Your task to perform on an android device: make emails show in primary in the gmail app Image 0: 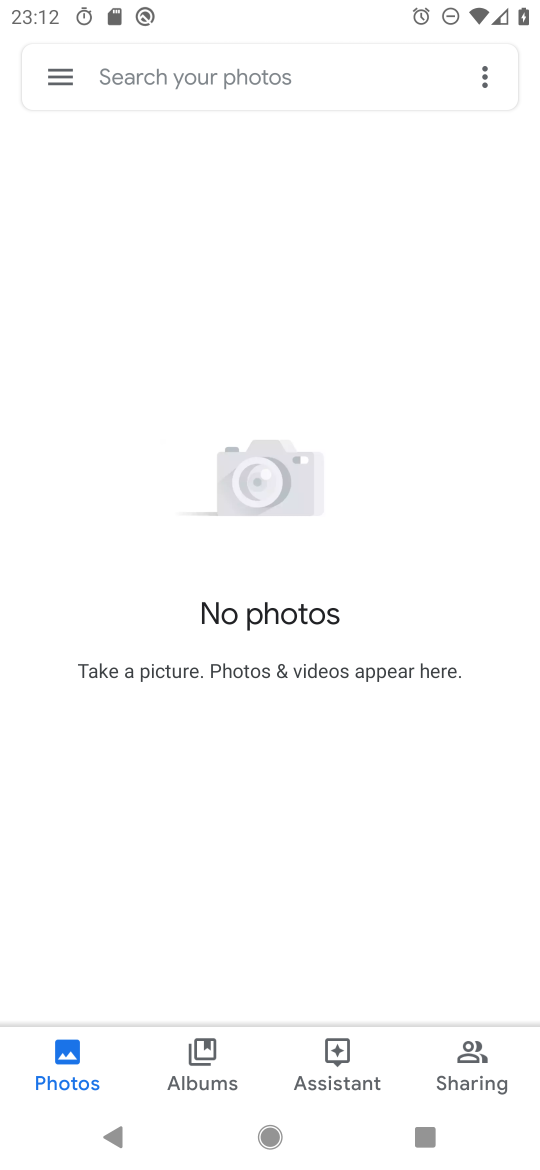
Step 0: drag from (291, 900) to (463, 252)
Your task to perform on an android device: make emails show in primary in the gmail app Image 1: 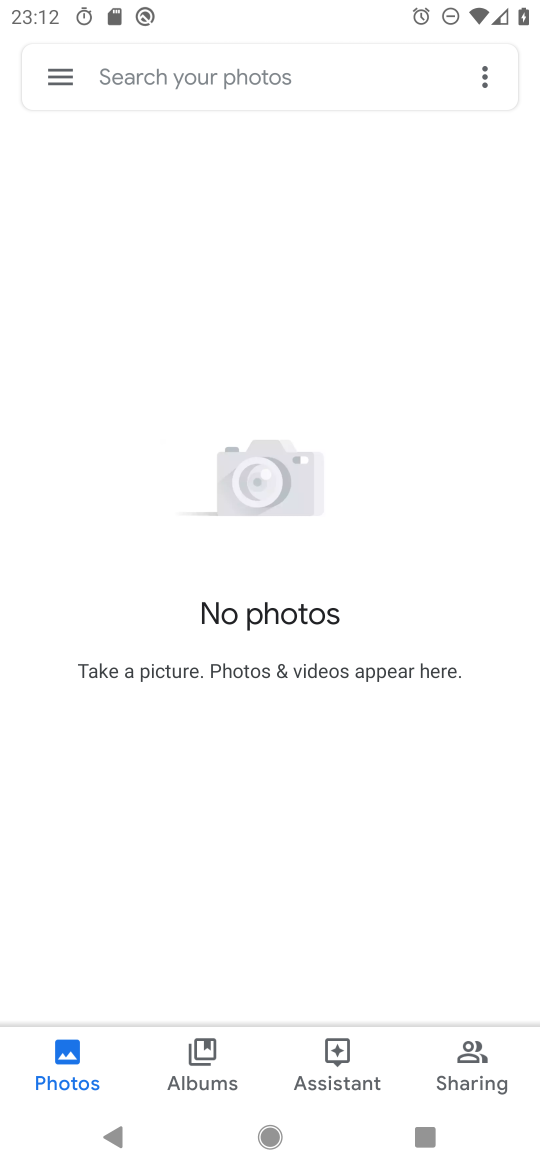
Step 1: press home button
Your task to perform on an android device: make emails show in primary in the gmail app Image 2: 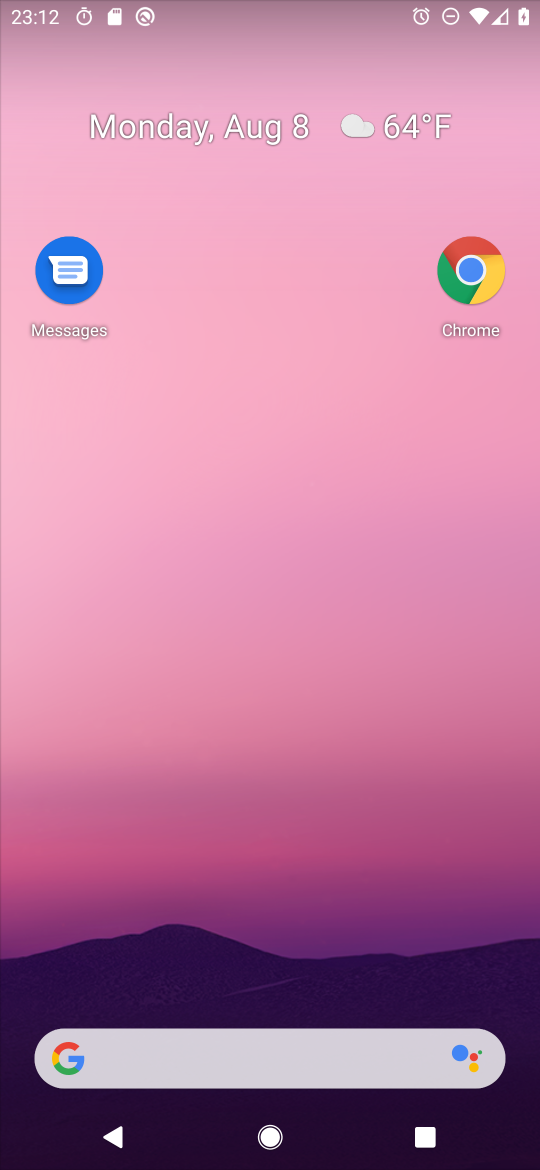
Step 2: drag from (299, 943) to (431, 73)
Your task to perform on an android device: make emails show in primary in the gmail app Image 3: 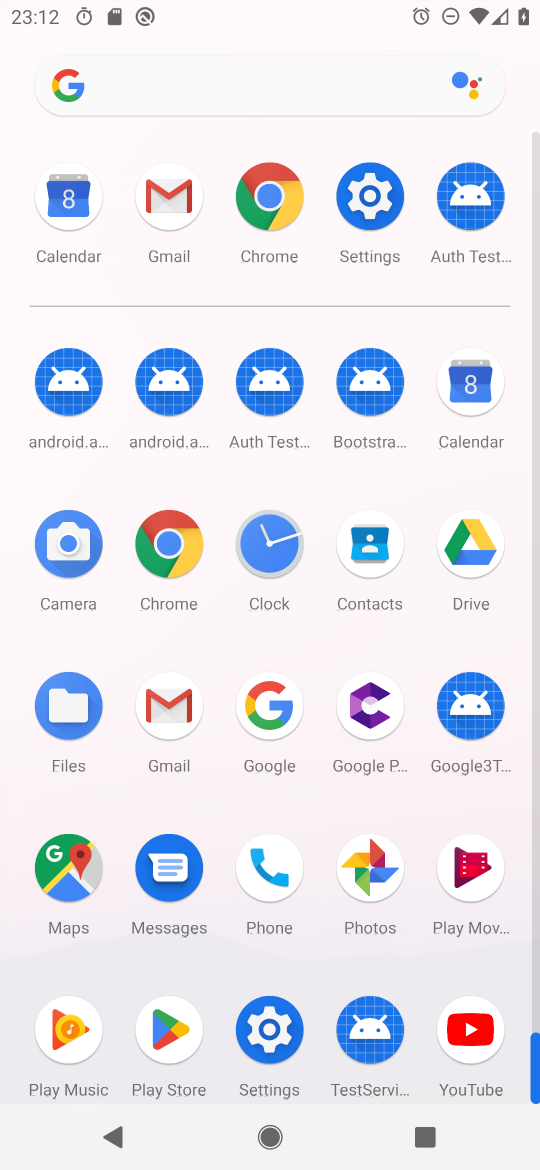
Step 3: click (176, 726)
Your task to perform on an android device: make emails show in primary in the gmail app Image 4: 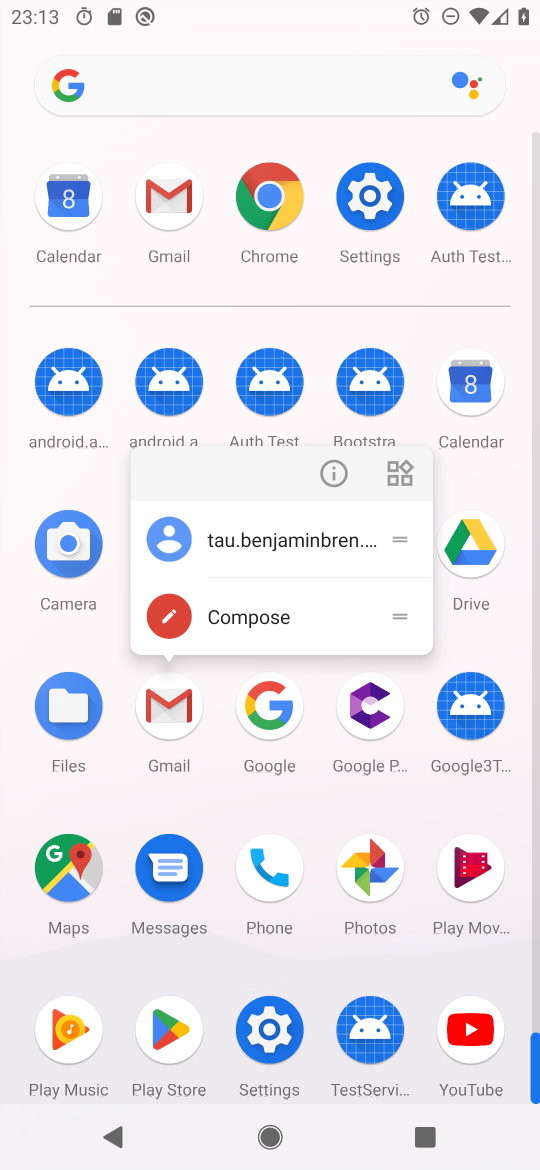
Step 4: click (327, 479)
Your task to perform on an android device: make emails show in primary in the gmail app Image 5: 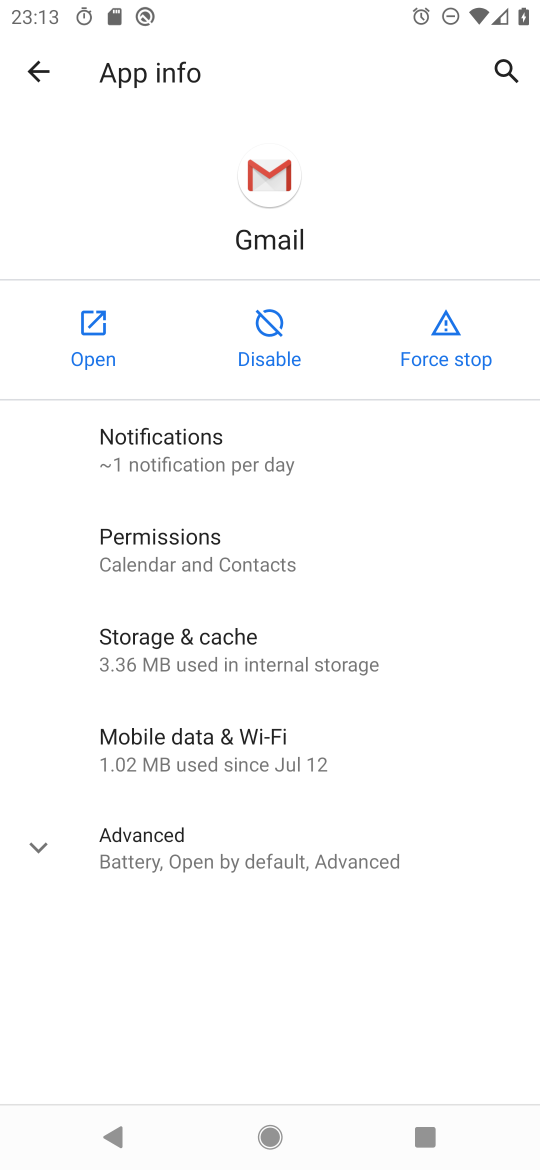
Step 5: click (107, 337)
Your task to perform on an android device: make emails show in primary in the gmail app Image 6: 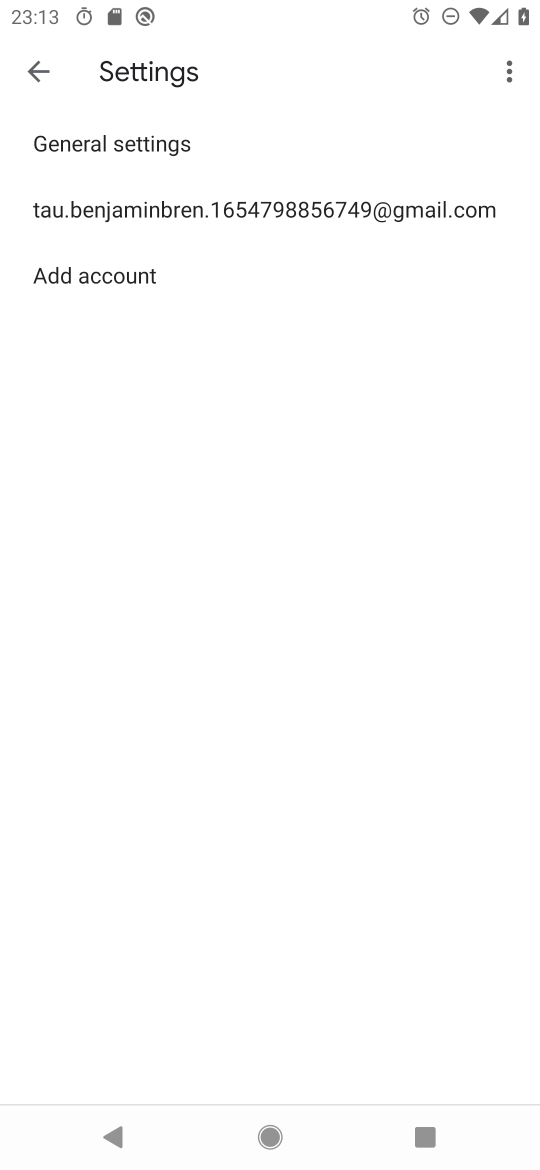
Step 6: click (43, 53)
Your task to perform on an android device: make emails show in primary in the gmail app Image 7: 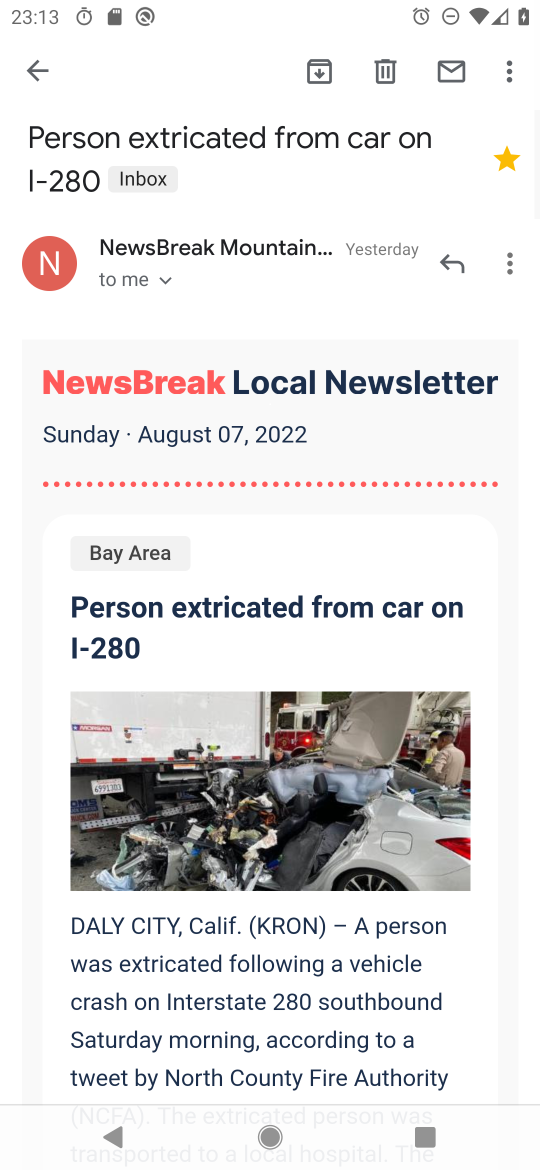
Step 7: click (41, 59)
Your task to perform on an android device: make emails show in primary in the gmail app Image 8: 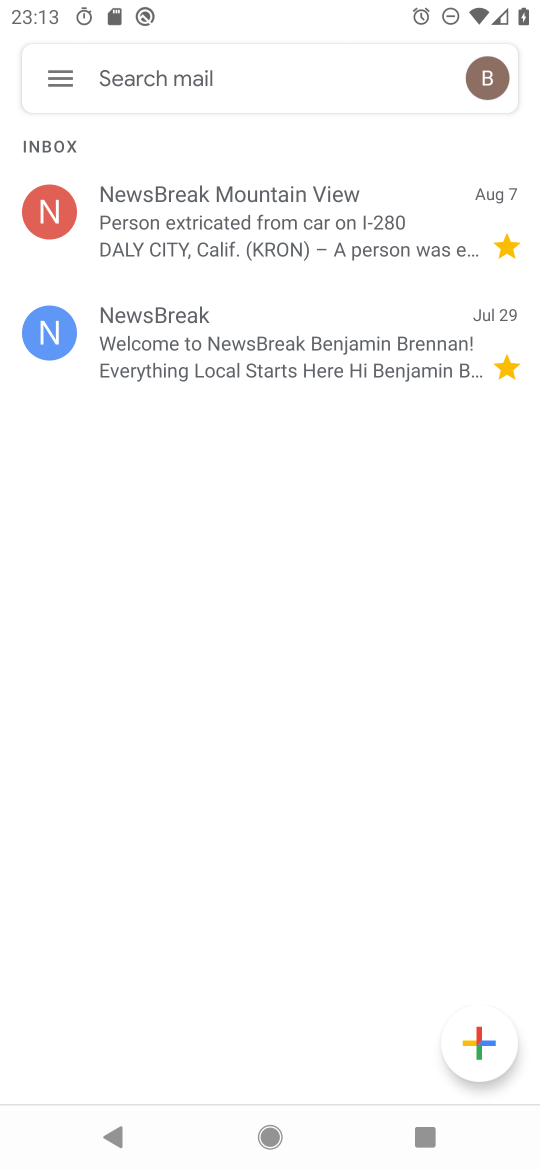
Step 8: click (67, 84)
Your task to perform on an android device: make emails show in primary in the gmail app Image 9: 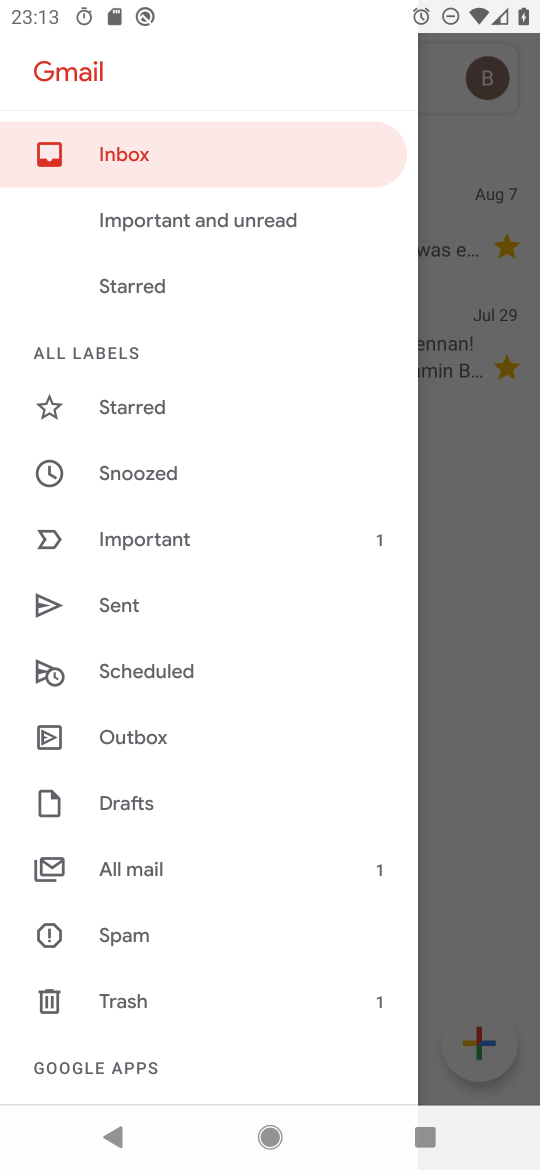
Step 9: click (182, 170)
Your task to perform on an android device: make emails show in primary in the gmail app Image 10: 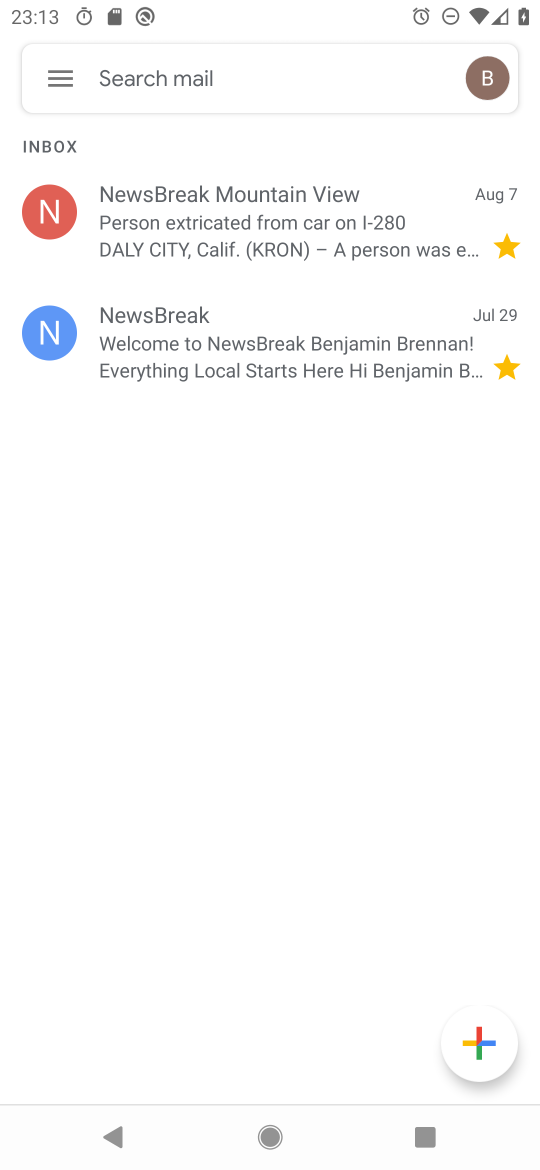
Step 10: drag from (251, 856) to (306, 713)
Your task to perform on an android device: make emails show in primary in the gmail app Image 11: 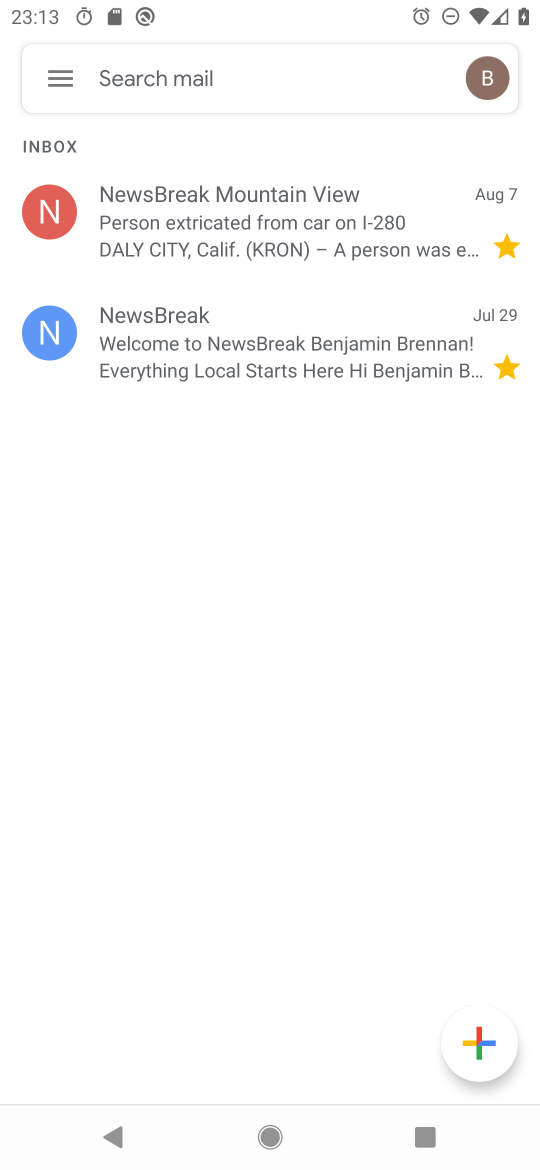
Step 11: click (48, 58)
Your task to perform on an android device: make emails show in primary in the gmail app Image 12: 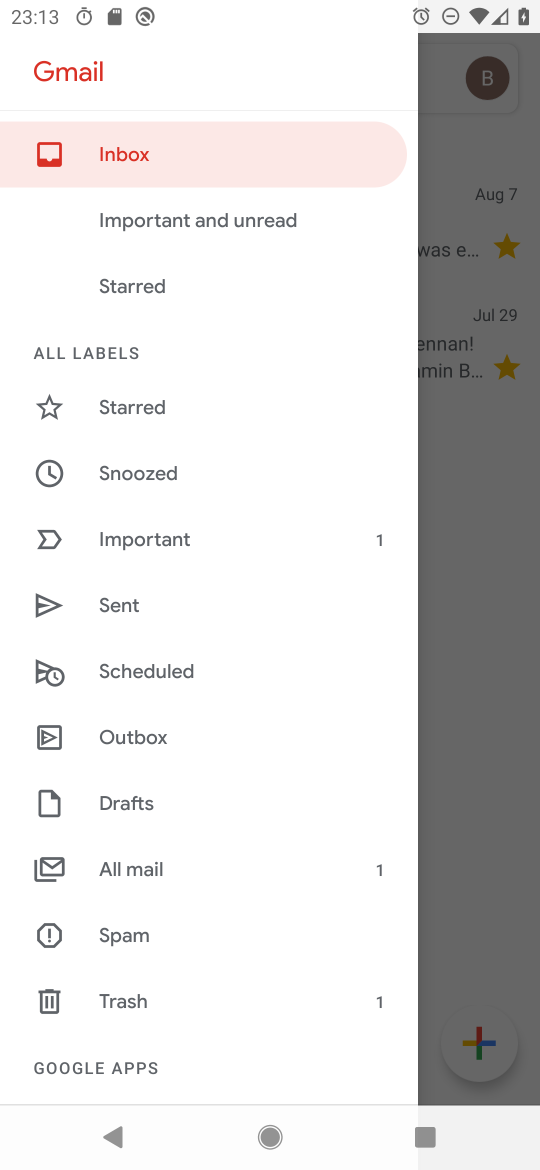
Step 12: click (110, 156)
Your task to perform on an android device: make emails show in primary in the gmail app Image 13: 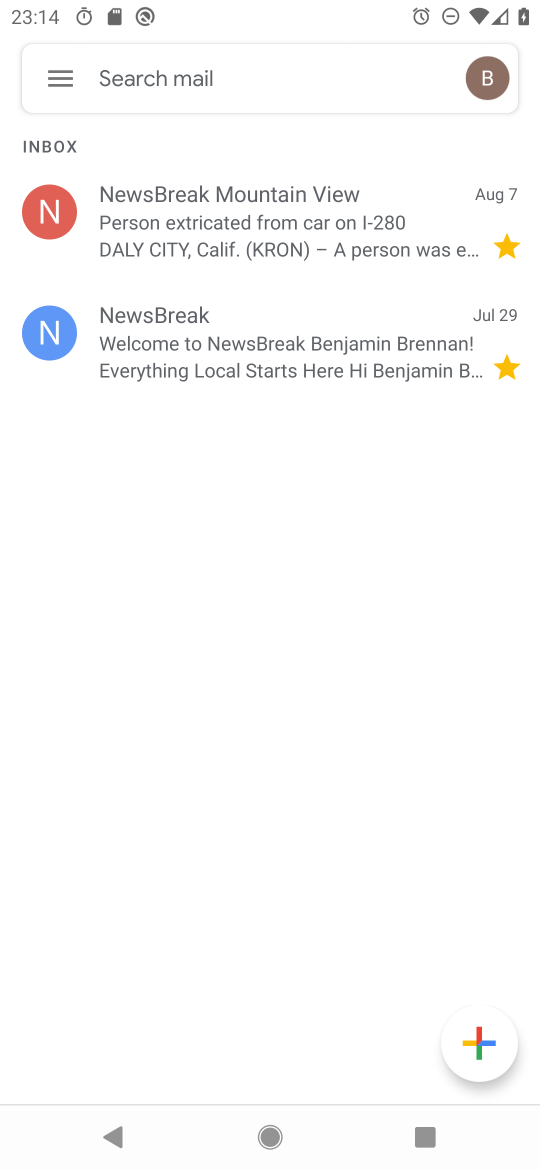
Step 13: drag from (268, 887) to (284, 676)
Your task to perform on an android device: make emails show in primary in the gmail app Image 14: 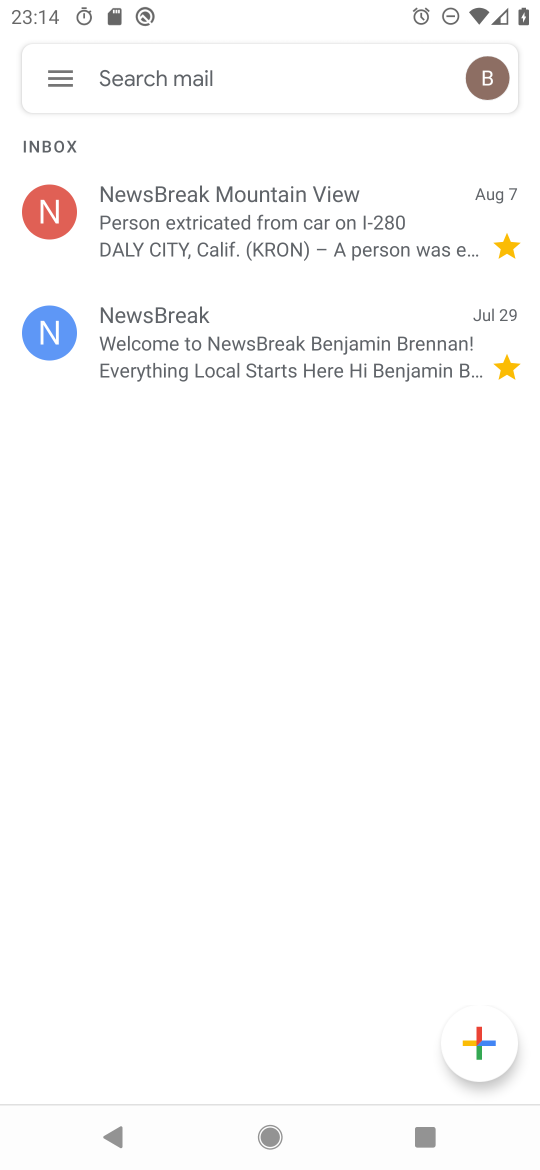
Step 14: click (25, 65)
Your task to perform on an android device: make emails show in primary in the gmail app Image 15: 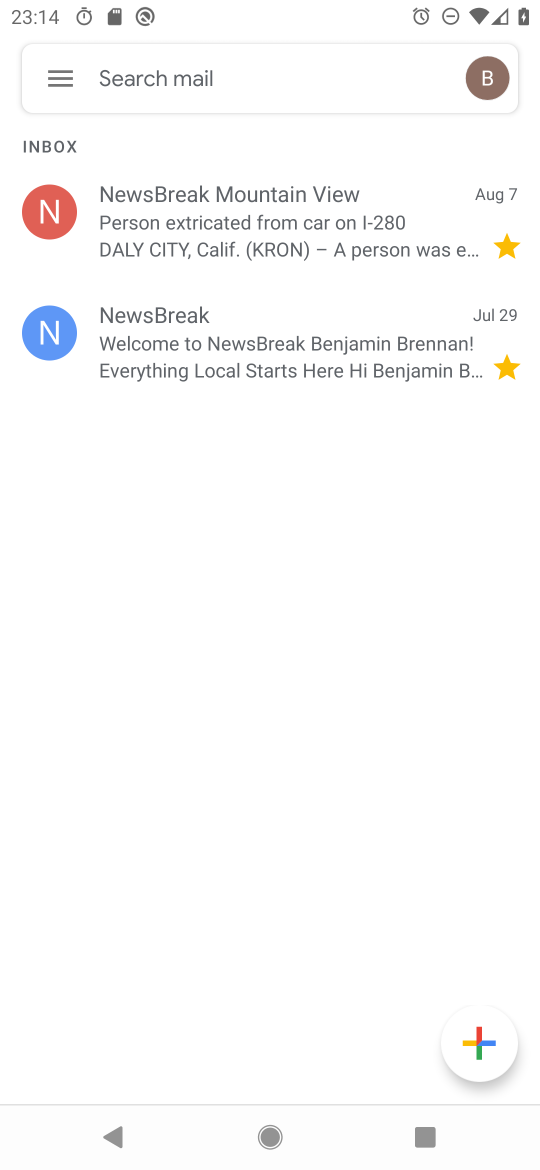
Step 15: click (44, 75)
Your task to perform on an android device: make emails show in primary in the gmail app Image 16: 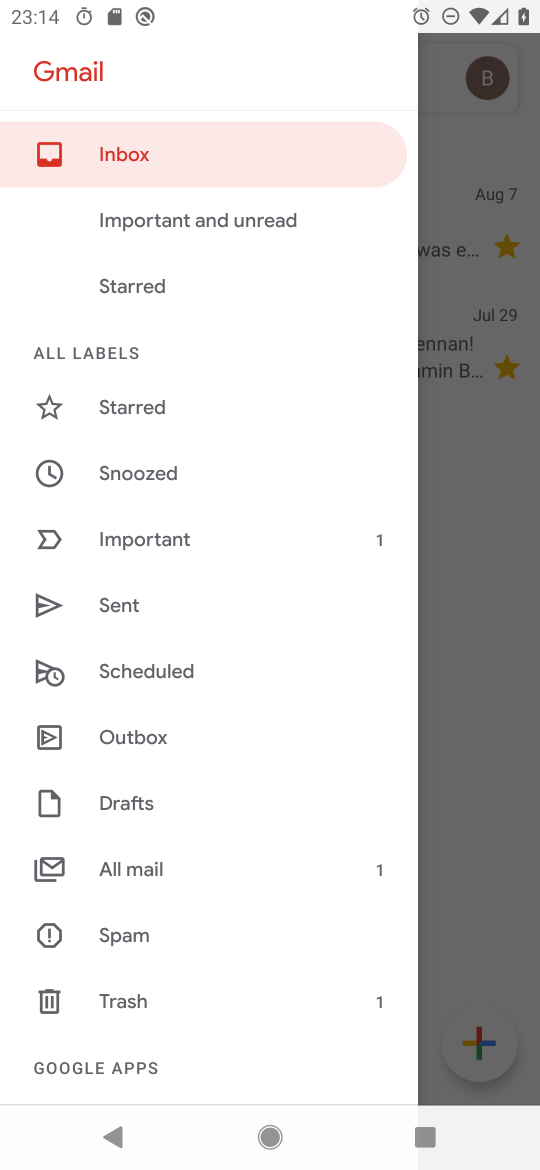
Step 16: click (135, 151)
Your task to perform on an android device: make emails show in primary in the gmail app Image 17: 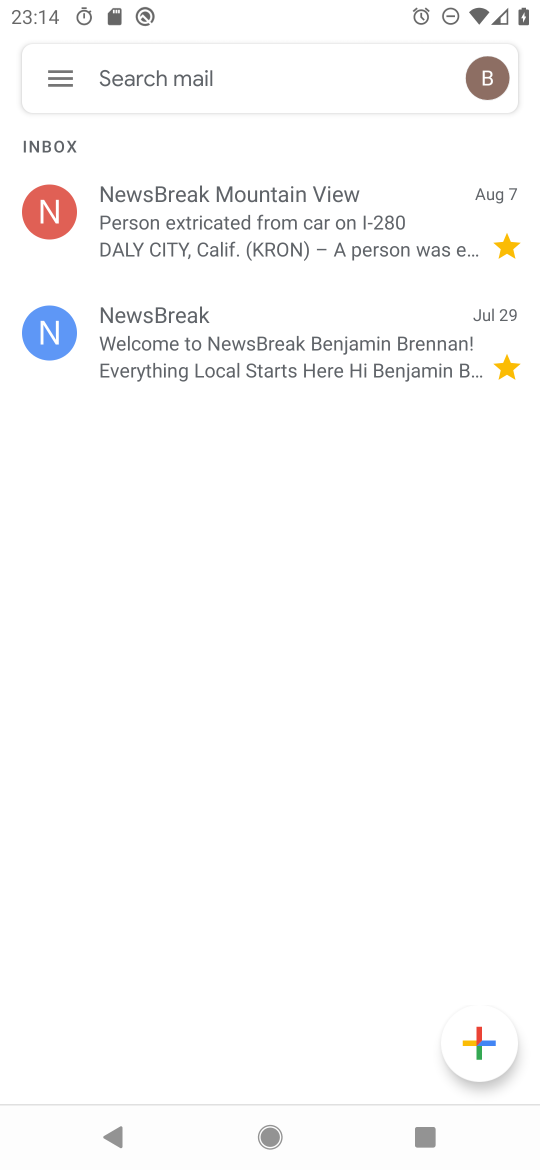
Step 17: task complete